Your task to perform on an android device: turn on notifications settings in the gmail app Image 0: 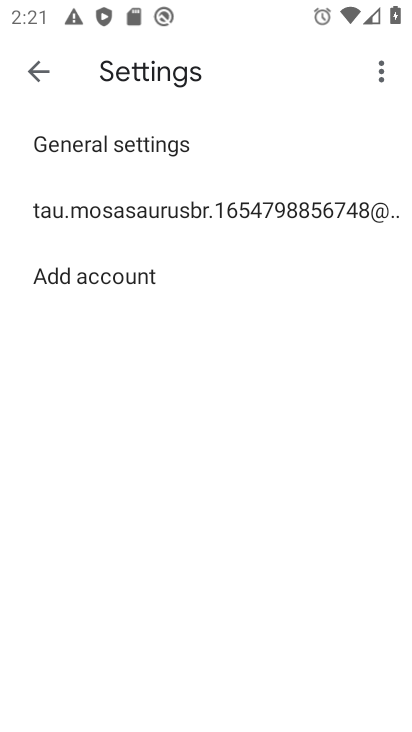
Step 0: press home button
Your task to perform on an android device: turn on notifications settings in the gmail app Image 1: 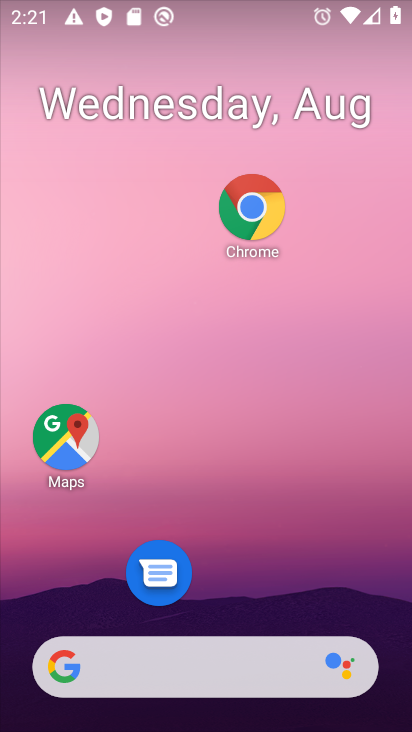
Step 1: drag from (207, 669) to (234, 272)
Your task to perform on an android device: turn on notifications settings in the gmail app Image 2: 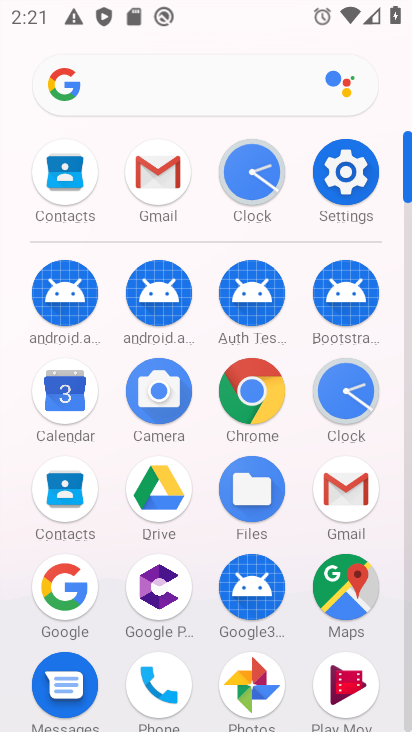
Step 2: click (340, 518)
Your task to perform on an android device: turn on notifications settings in the gmail app Image 3: 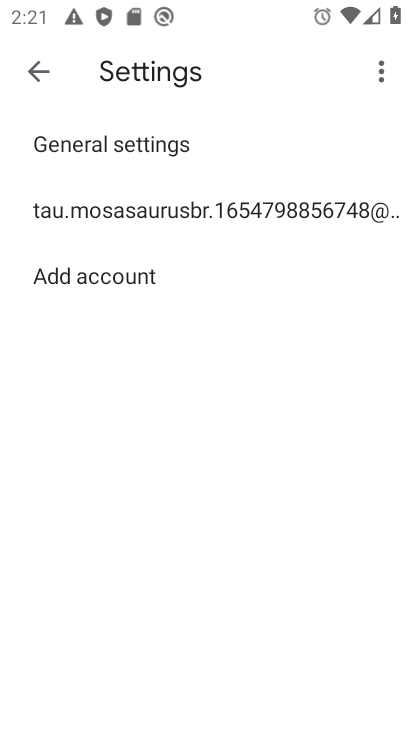
Step 3: click (154, 157)
Your task to perform on an android device: turn on notifications settings in the gmail app Image 4: 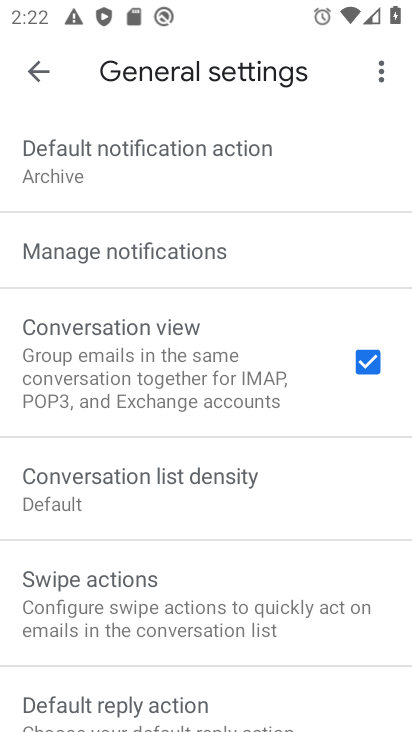
Step 4: click (130, 255)
Your task to perform on an android device: turn on notifications settings in the gmail app Image 5: 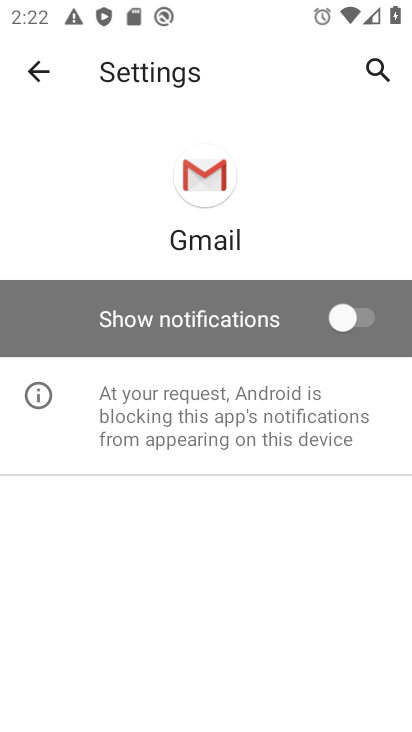
Step 5: click (358, 317)
Your task to perform on an android device: turn on notifications settings in the gmail app Image 6: 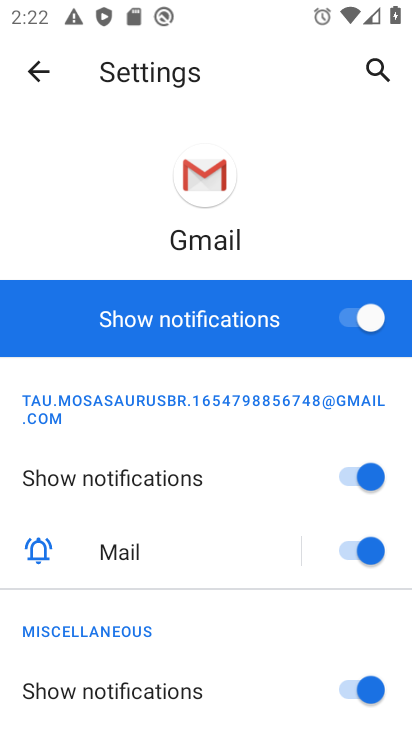
Step 6: task complete